Your task to perform on an android device: turn off sleep mode Image 0: 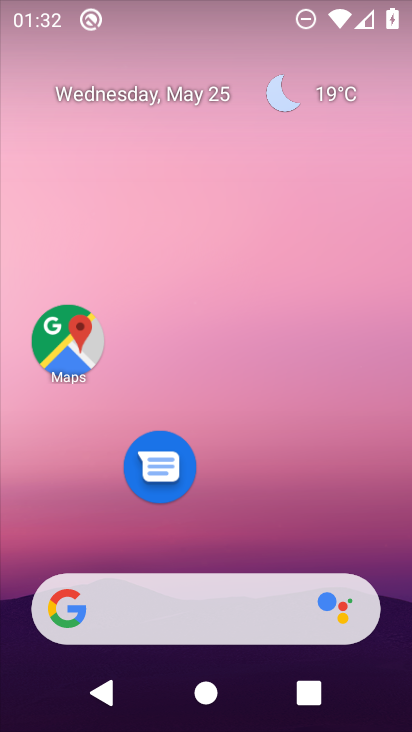
Step 0: click (311, 109)
Your task to perform on an android device: turn off sleep mode Image 1: 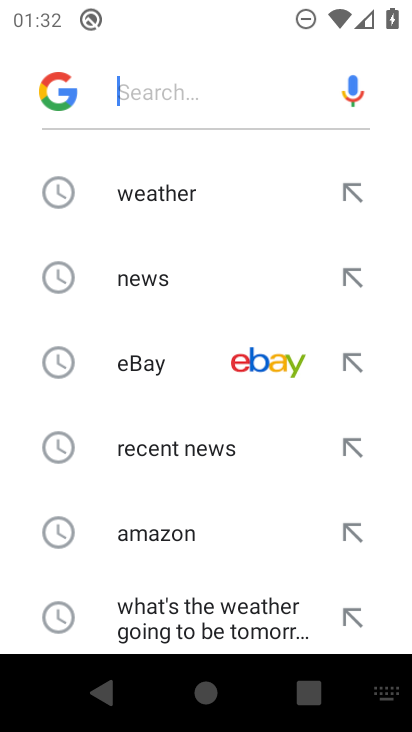
Step 1: press home button
Your task to perform on an android device: turn off sleep mode Image 2: 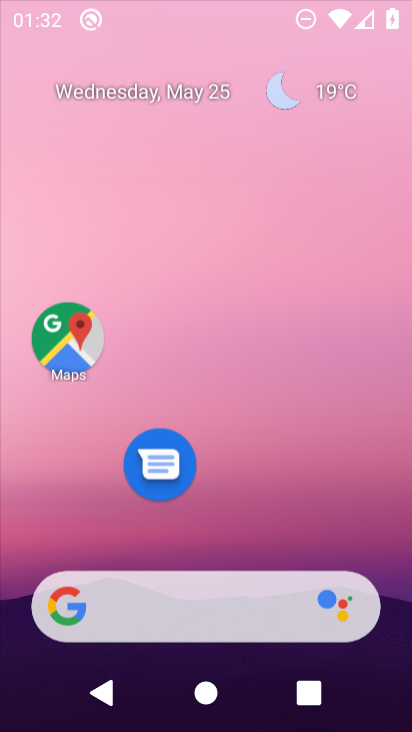
Step 2: drag from (249, 528) to (231, 126)
Your task to perform on an android device: turn off sleep mode Image 3: 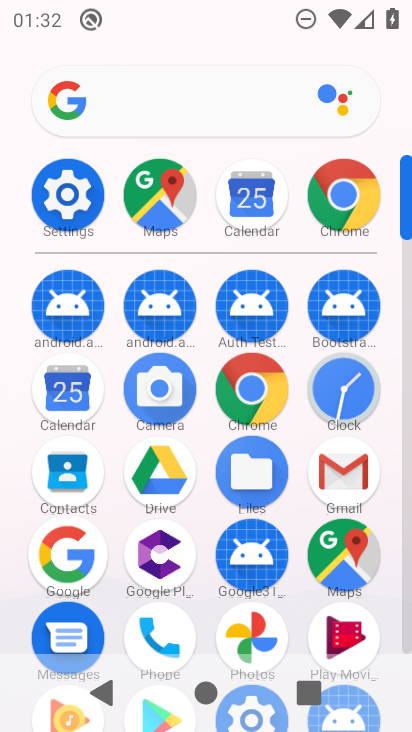
Step 3: click (75, 191)
Your task to perform on an android device: turn off sleep mode Image 4: 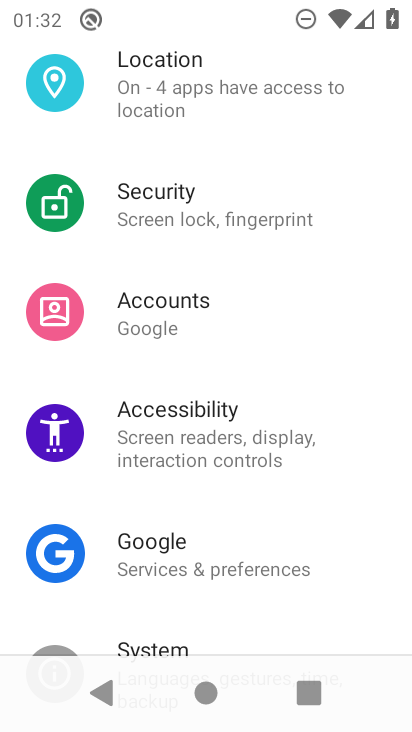
Step 4: drag from (199, 155) to (257, 672)
Your task to perform on an android device: turn off sleep mode Image 5: 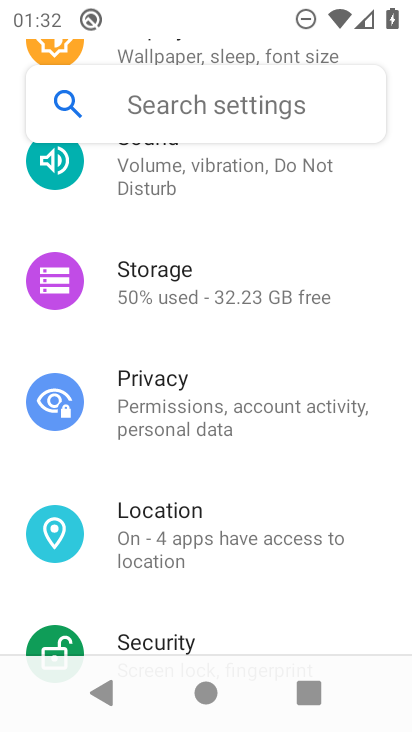
Step 5: drag from (176, 329) to (279, 704)
Your task to perform on an android device: turn off sleep mode Image 6: 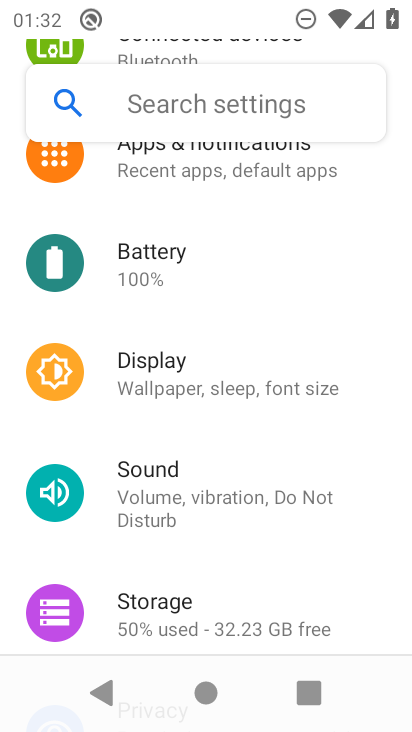
Step 6: click (223, 376)
Your task to perform on an android device: turn off sleep mode Image 7: 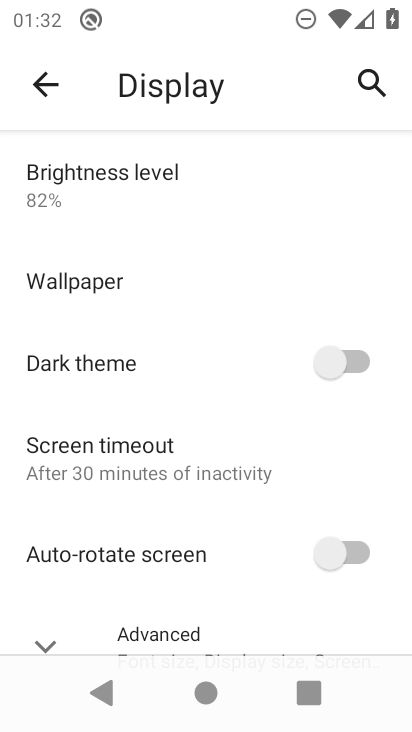
Step 7: drag from (245, 268) to (272, 688)
Your task to perform on an android device: turn off sleep mode Image 8: 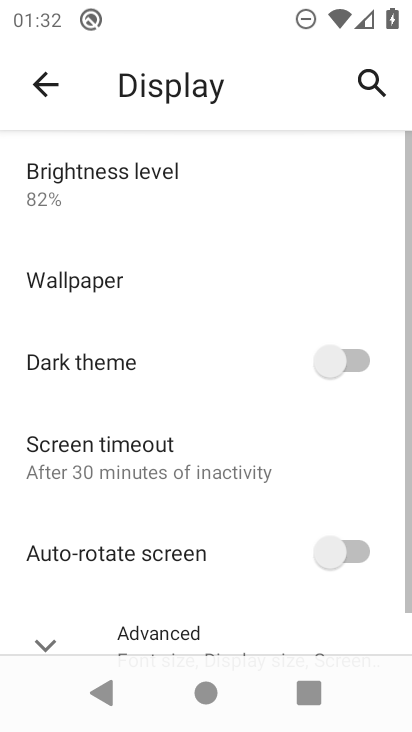
Step 8: drag from (253, 569) to (406, 30)
Your task to perform on an android device: turn off sleep mode Image 9: 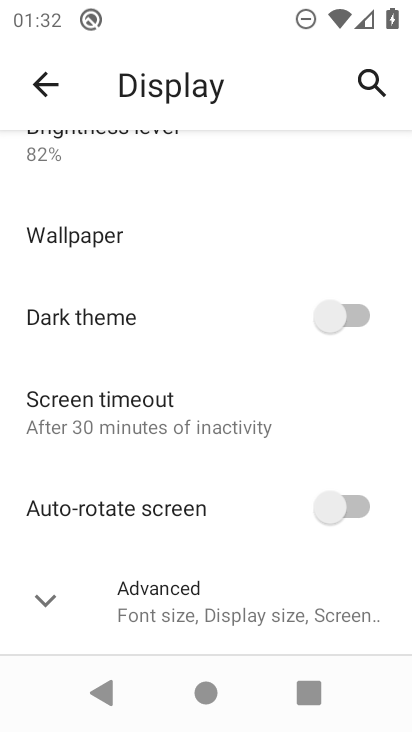
Step 9: drag from (248, 439) to (285, 215)
Your task to perform on an android device: turn off sleep mode Image 10: 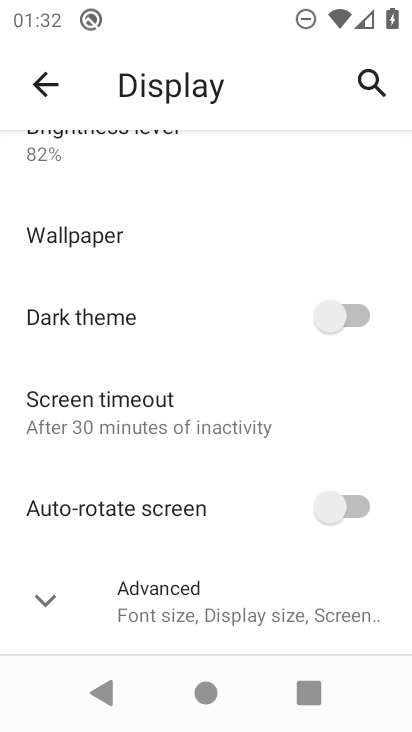
Step 10: click (143, 415)
Your task to perform on an android device: turn off sleep mode Image 11: 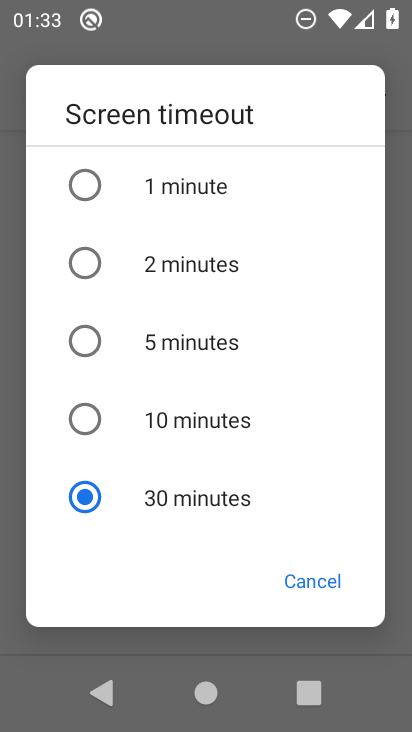
Step 11: task complete